Your task to perform on an android device: change the clock display to show seconds Image 0: 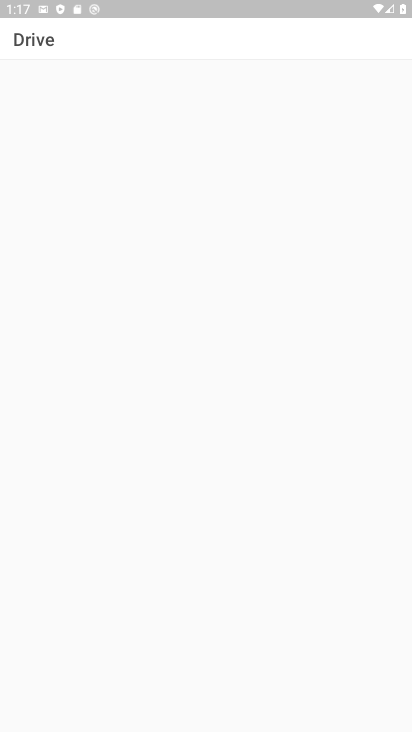
Step 0: press home button
Your task to perform on an android device: change the clock display to show seconds Image 1: 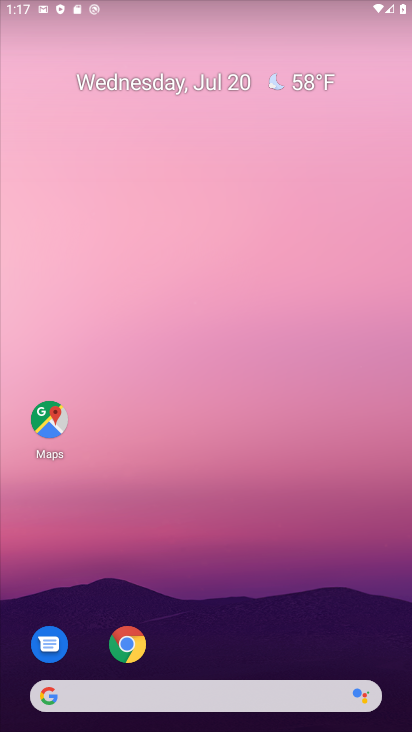
Step 1: drag from (208, 646) to (232, 93)
Your task to perform on an android device: change the clock display to show seconds Image 2: 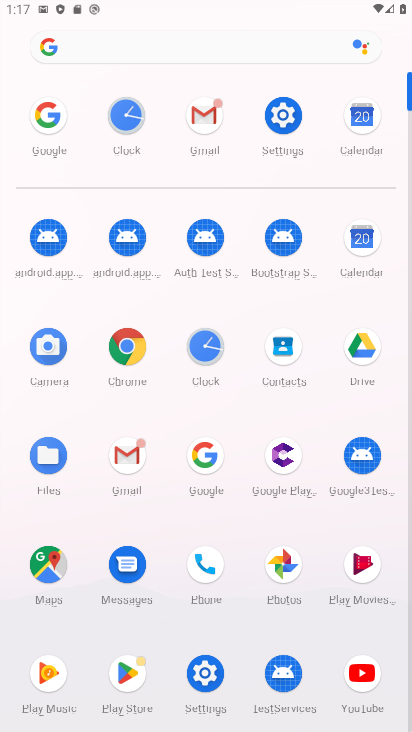
Step 2: click (204, 346)
Your task to perform on an android device: change the clock display to show seconds Image 3: 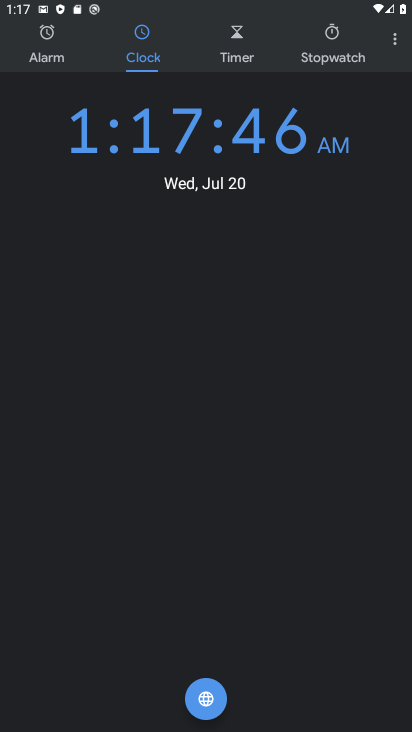
Step 3: click (387, 46)
Your task to perform on an android device: change the clock display to show seconds Image 4: 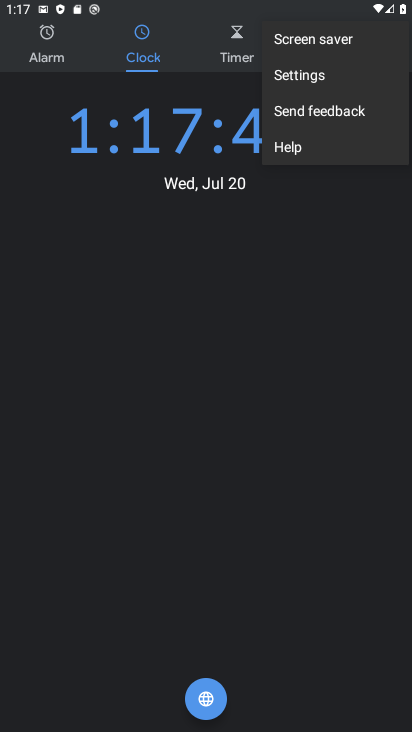
Step 4: click (311, 81)
Your task to perform on an android device: change the clock display to show seconds Image 5: 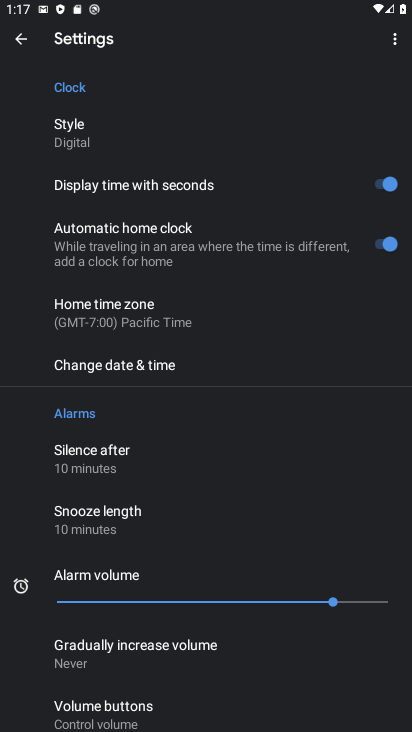
Step 5: click (392, 174)
Your task to perform on an android device: change the clock display to show seconds Image 6: 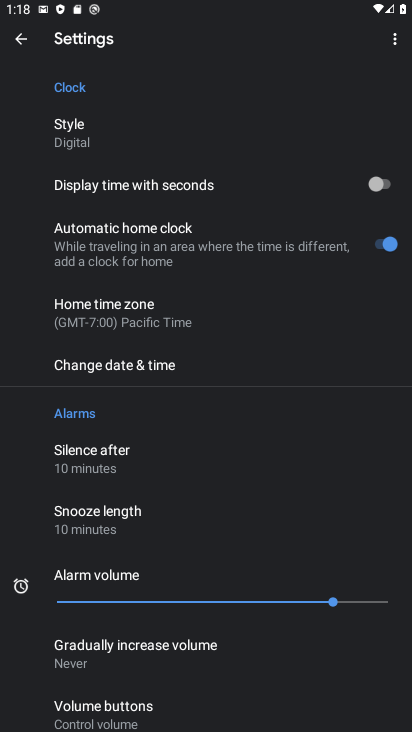
Step 6: task complete